Your task to perform on an android device: see creations saved in the google photos Image 0: 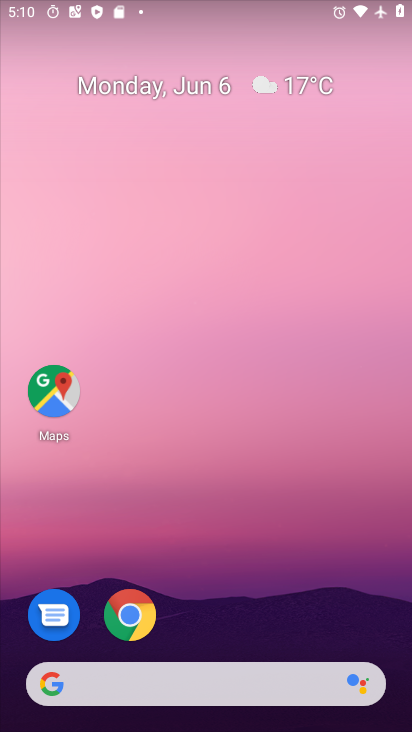
Step 0: drag from (253, 533) to (12, 391)
Your task to perform on an android device: see creations saved in the google photos Image 1: 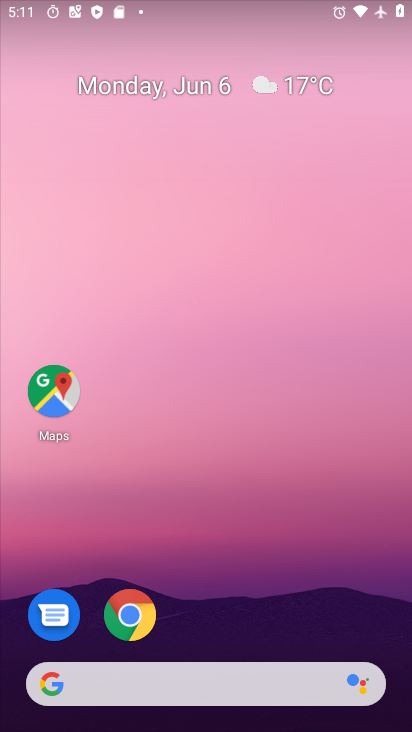
Step 1: drag from (20, 667) to (19, 11)
Your task to perform on an android device: see creations saved in the google photos Image 2: 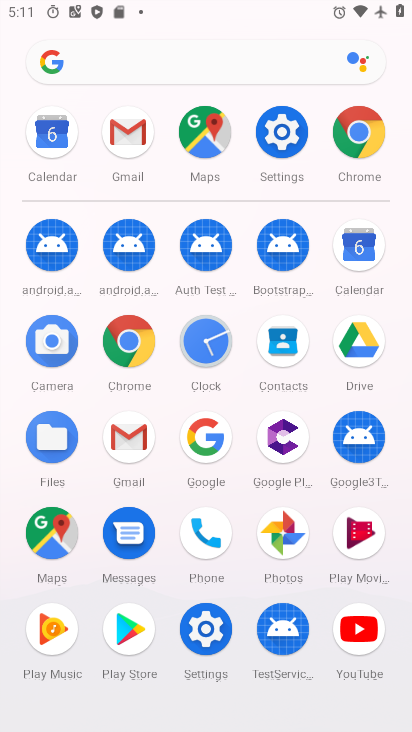
Step 2: click (287, 533)
Your task to perform on an android device: see creations saved in the google photos Image 3: 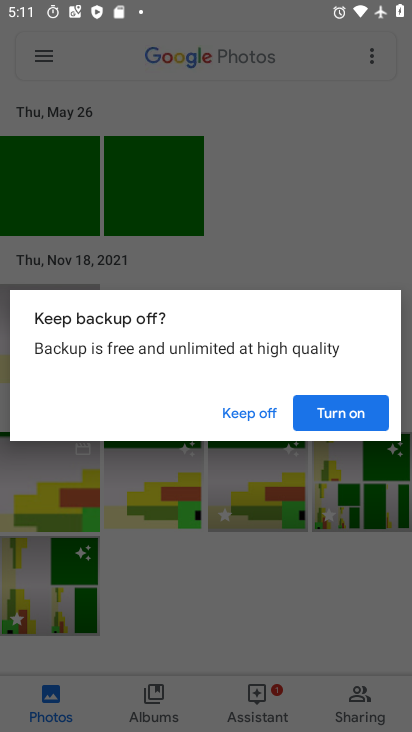
Step 3: click (334, 407)
Your task to perform on an android device: see creations saved in the google photos Image 4: 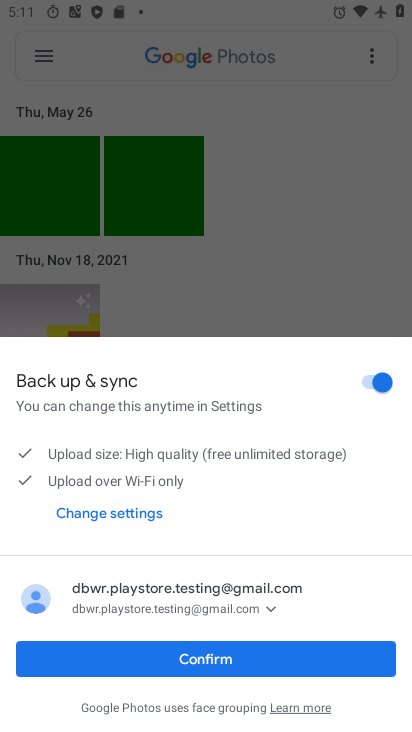
Step 4: click (256, 661)
Your task to perform on an android device: see creations saved in the google photos Image 5: 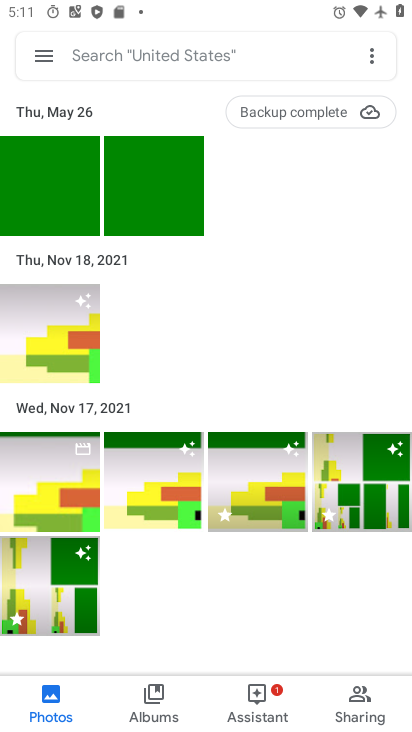
Step 5: task complete